Your task to perform on an android device: turn on showing notifications on the lock screen Image 0: 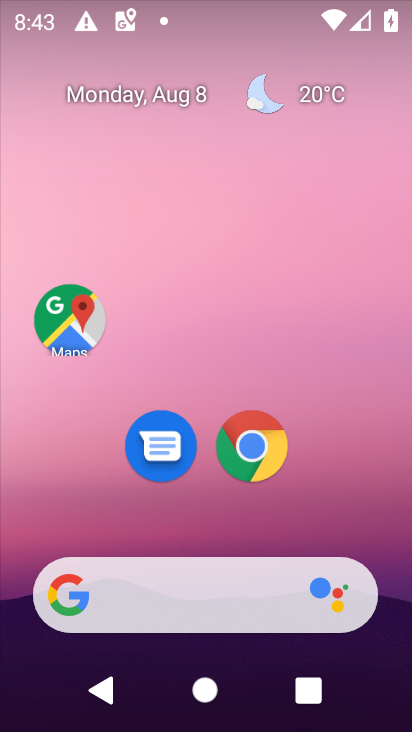
Step 0: drag from (400, 583) to (344, 106)
Your task to perform on an android device: turn on showing notifications on the lock screen Image 1: 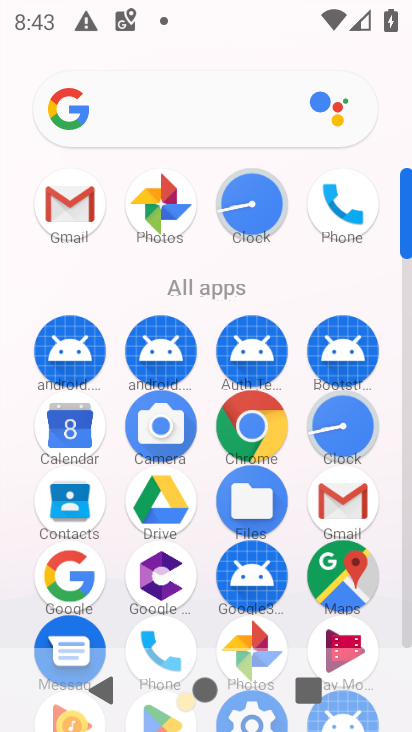
Step 1: click (406, 634)
Your task to perform on an android device: turn on showing notifications on the lock screen Image 2: 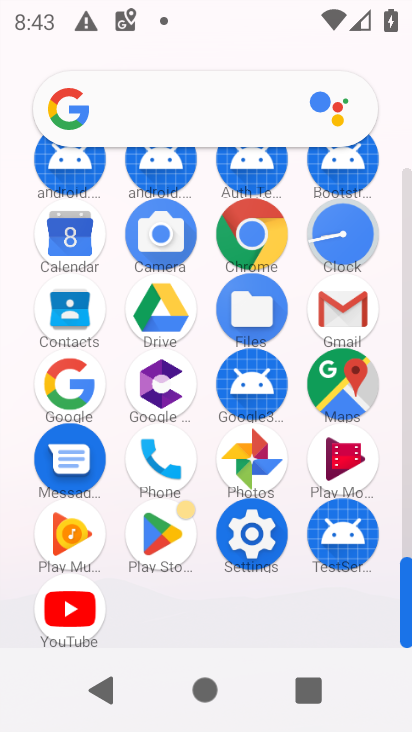
Step 2: click (254, 532)
Your task to perform on an android device: turn on showing notifications on the lock screen Image 3: 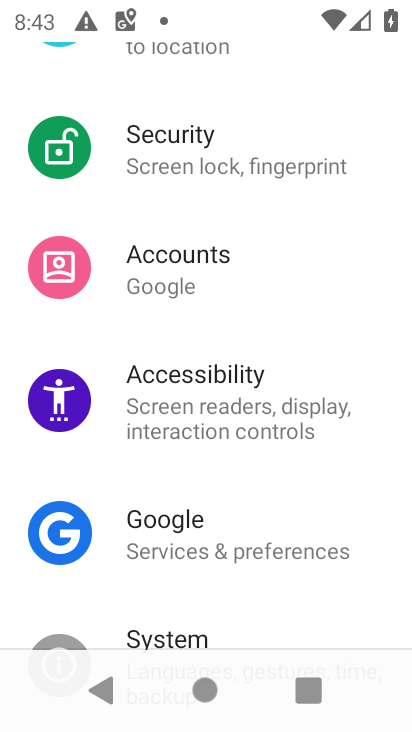
Step 3: drag from (338, 146) to (344, 303)
Your task to perform on an android device: turn on showing notifications on the lock screen Image 4: 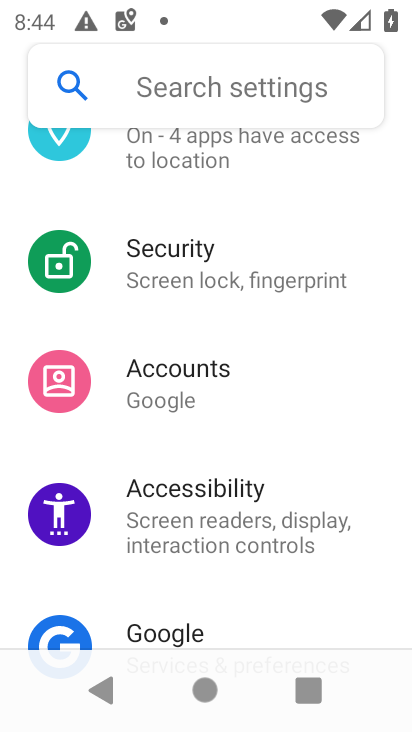
Step 4: drag from (361, 150) to (366, 540)
Your task to perform on an android device: turn on showing notifications on the lock screen Image 5: 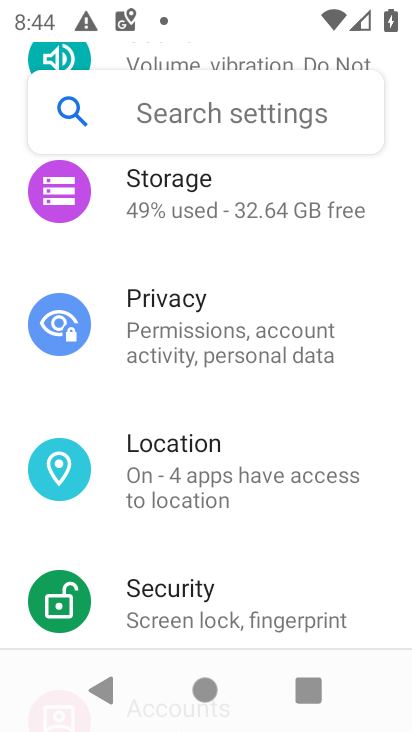
Step 5: drag from (359, 203) to (341, 532)
Your task to perform on an android device: turn on showing notifications on the lock screen Image 6: 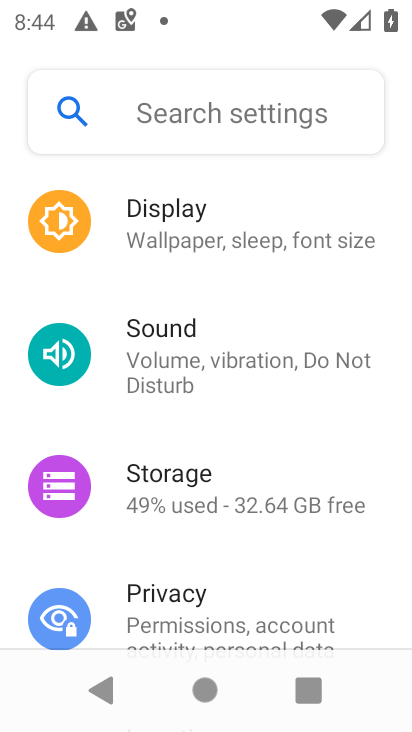
Step 6: drag from (359, 249) to (379, 560)
Your task to perform on an android device: turn on showing notifications on the lock screen Image 7: 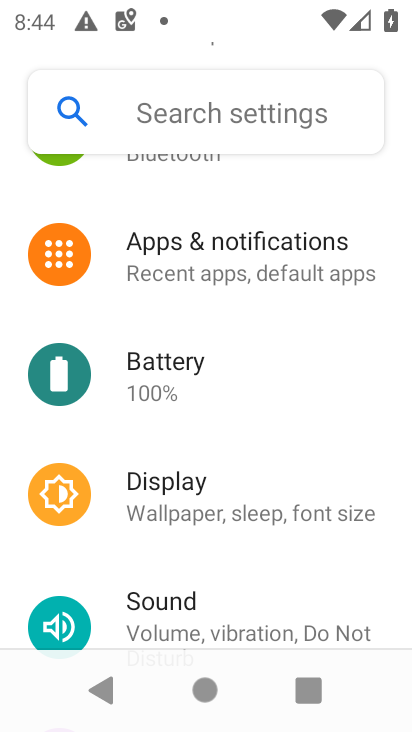
Step 7: click (179, 256)
Your task to perform on an android device: turn on showing notifications on the lock screen Image 8: 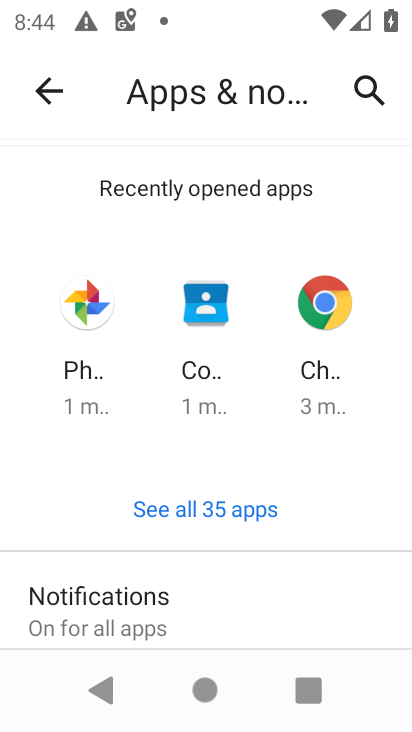
Step 8: drag from (293, 519) to (279, 176)
Your task to perform on an android device: turn on showing notifications on the lock screen Image 9: 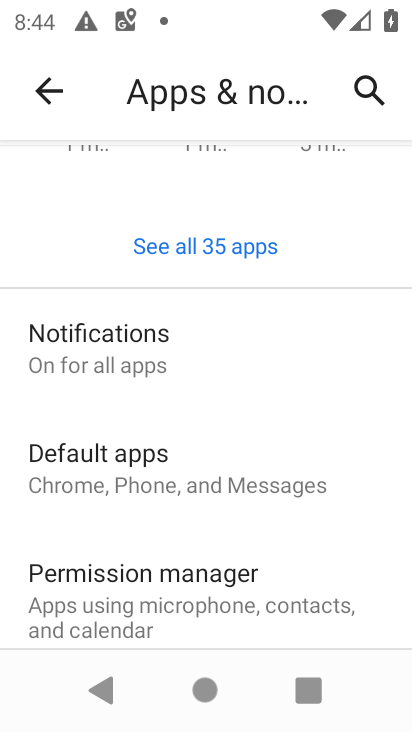
Step 9: click (99, 331)
Your task to perform on an android device: turn on showing notifications on the lock screen Image 10: 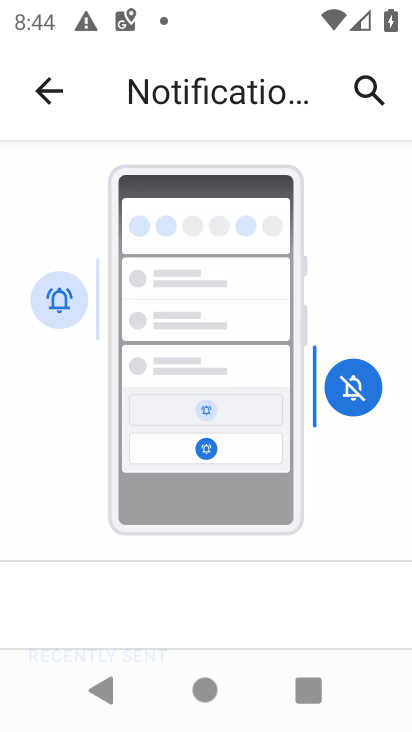
Step 10: drag from (267, 618) to (273, 154)
Your task to perform on an android device: turn on showing notifications on the lock screen Image 11: 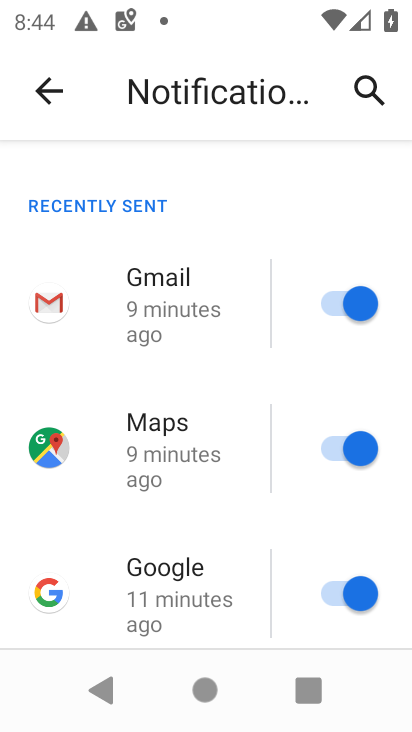
Step 11: drag from (259, 625) to (261, 246)
Your task to perform on an android device: turn on showing notifications on the lock screen Image 12: 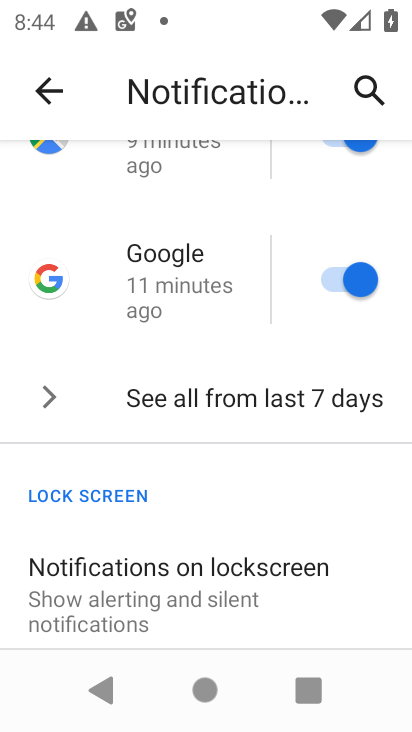
Step 12: click (140, 574)
Your task to perform on an android device: turn on showing notifications on the lock screen Image 13: 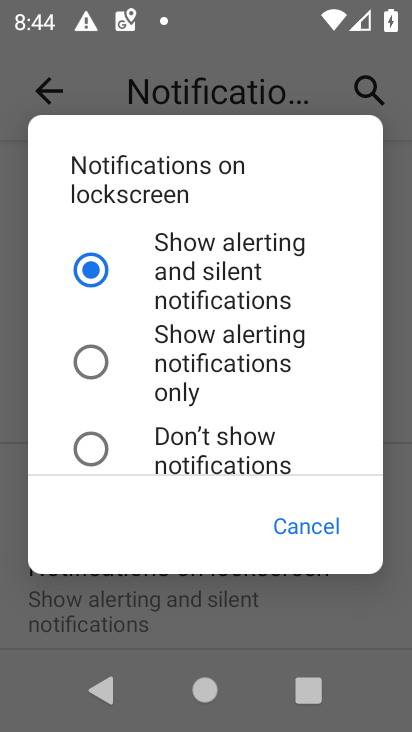
Step 13: task complete